Your task to perform on an android device: open app "HBO Max: Stream TV & Movies" (install if not already installed) Image 0: 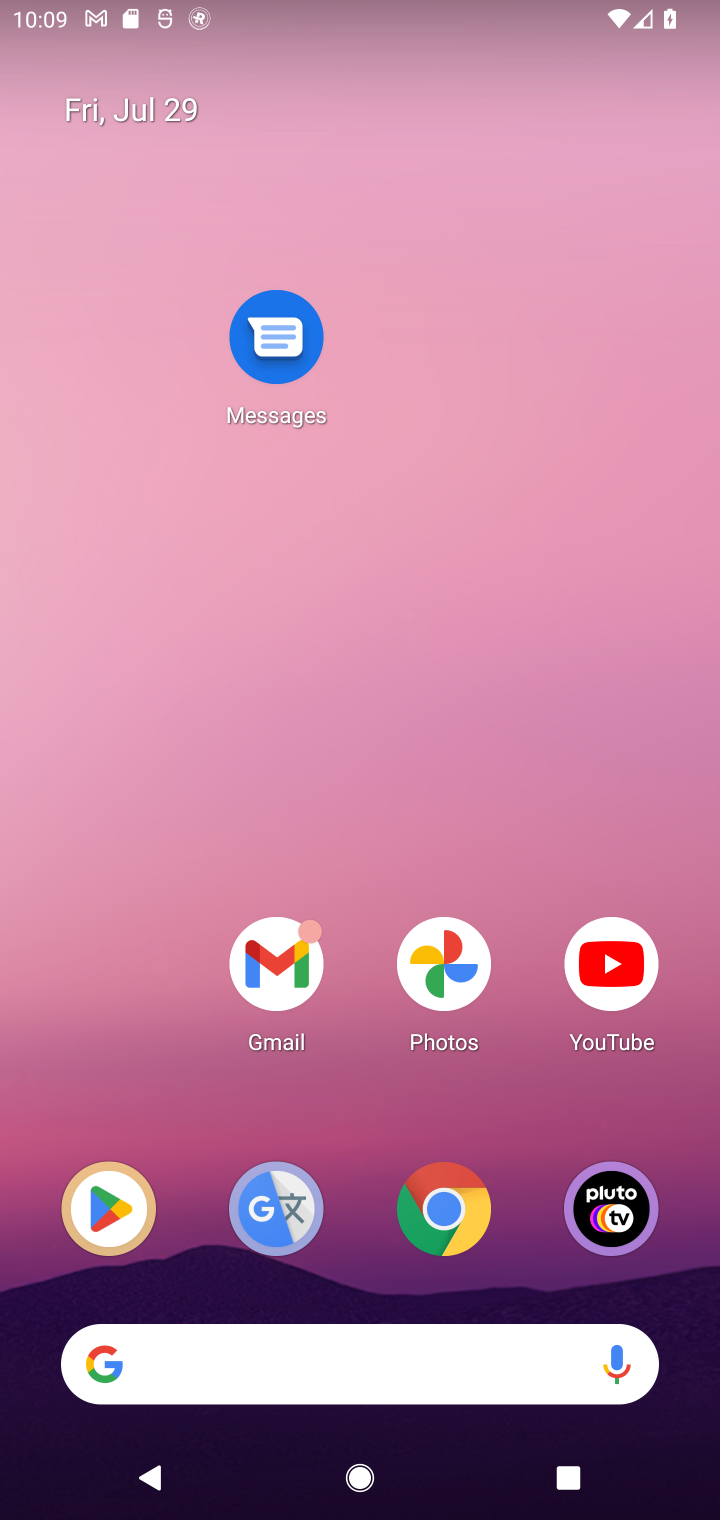
Step 0: drag from (306, 1375) to (377, 6)
Your task to perform on an android device: open app "HBO Max: Stream TV & Movies" (install if not already installed) Image 1: 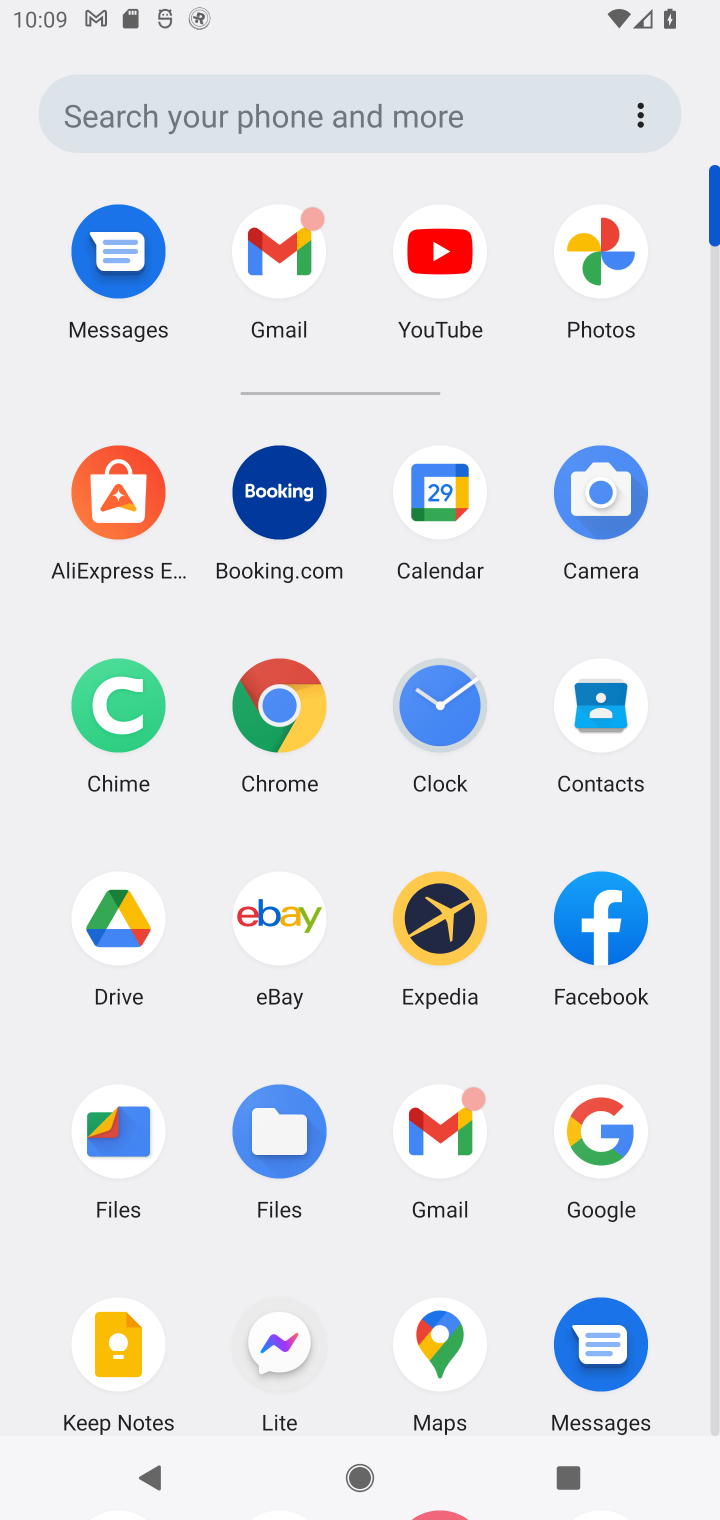
Step 1: drag from (344, 1250) to (393, 656)
Your task to perform on an android device: open app "HBO Max: Stream TV & Movies" (install if not already installed) Image 2: 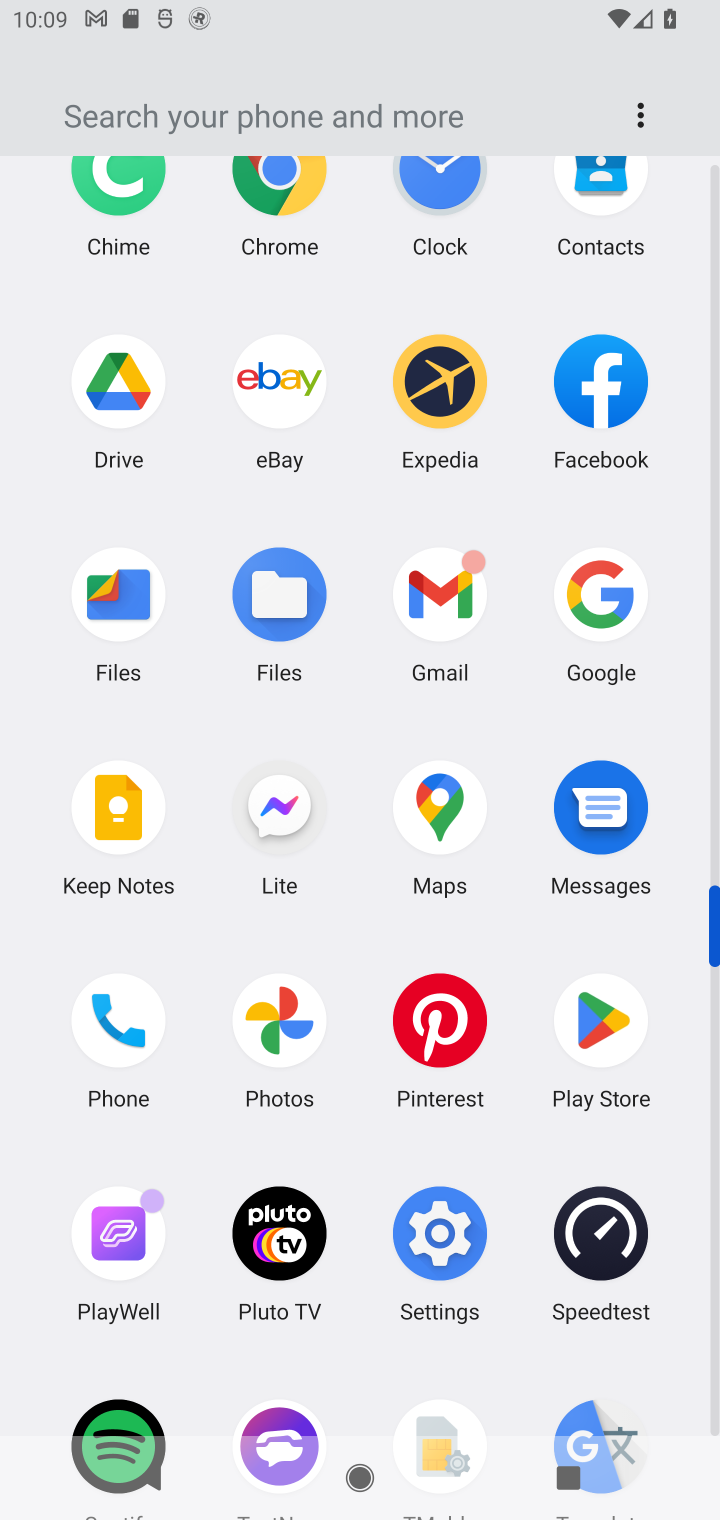
Step 2: click (606, 1021)
Your task to perform on an android device: open app "HBO Max: Stream TV & Movies" (install if not already installed) Image 3: 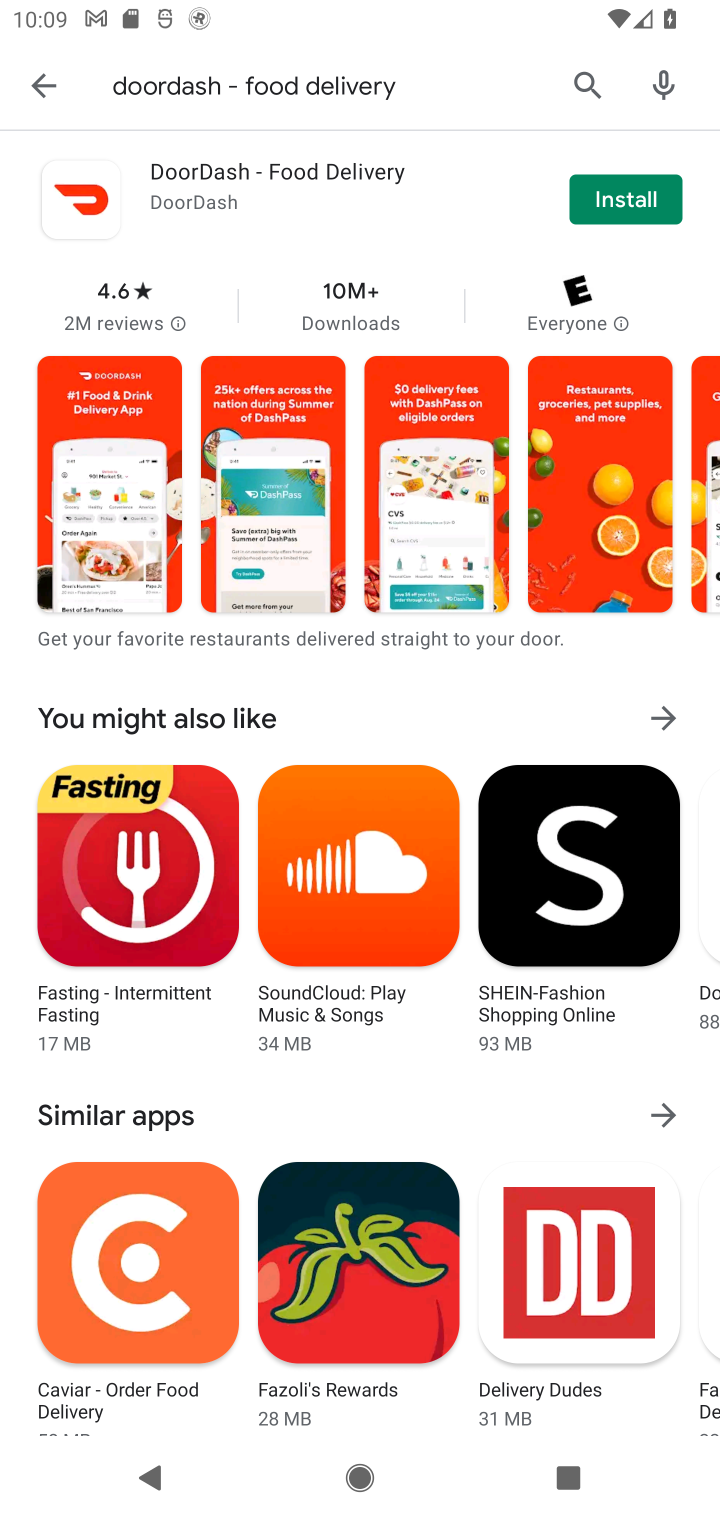
Step 3: click (487, 97)
Your task to perform on an android device: open app "HBO Max: Stream TV & Movies" (install if not already installed) Image 4: 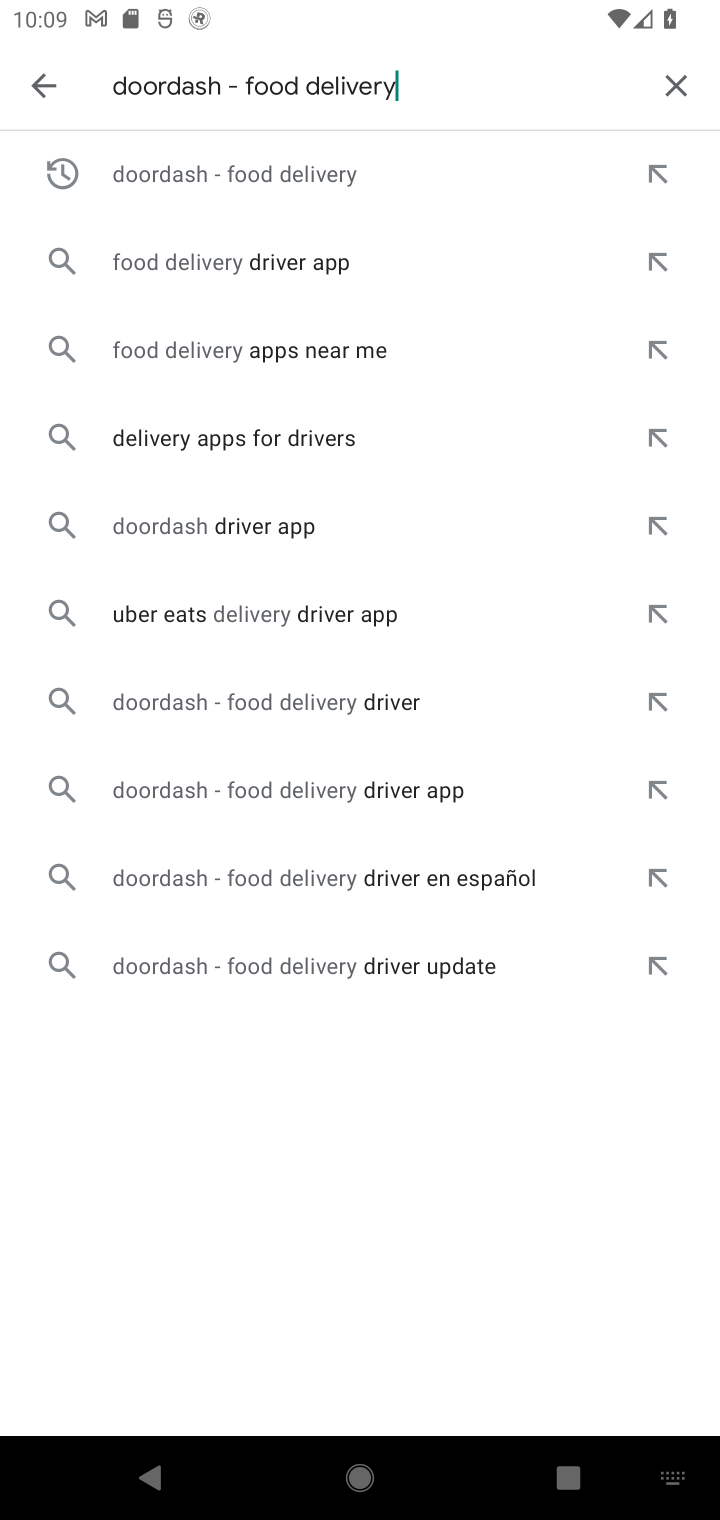
Step 4: click (690, 89)
Your task to perform on an android device: open app "HBO Max: Stream TV & Movies" (install if not already installed) Image 5: 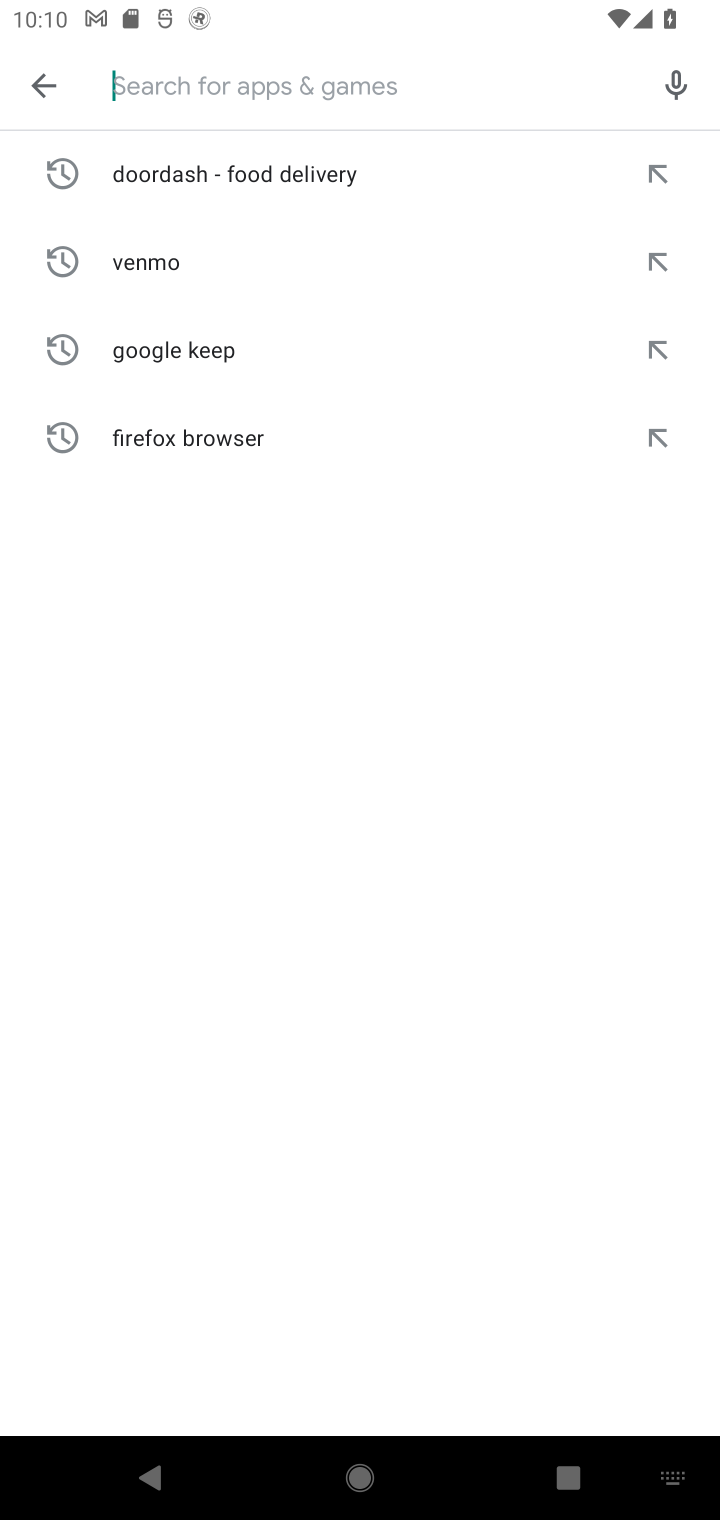
Step 5: type "HBO Max: Stream TV & Movies"
Your task to perform on an android device: open app "HBO Max: Stream TV & Movies" (install if not already installed) Image 6: 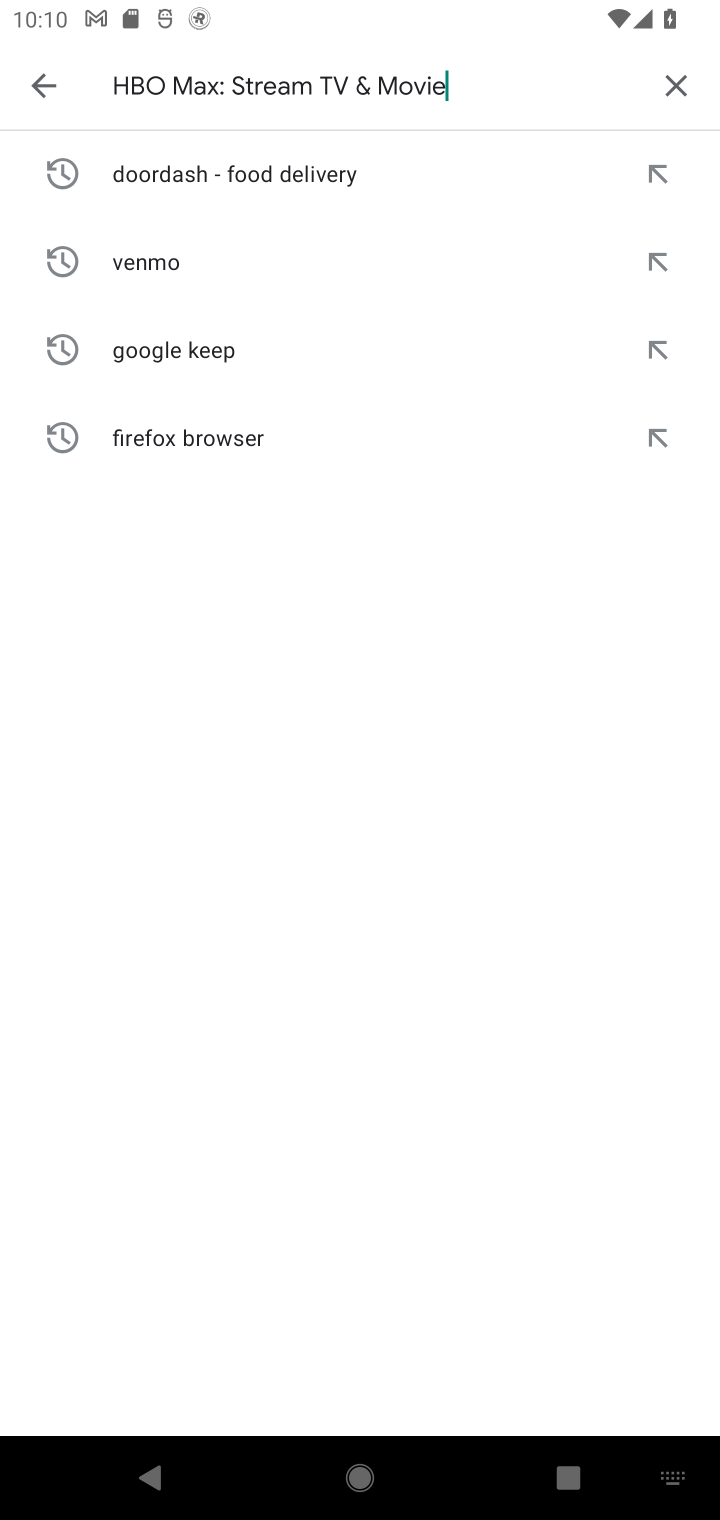
Step 6: type ""
Your task to perform on an android device: open app "HBO Max: Stream TV & Movies" (install if not already installed) Image 7: 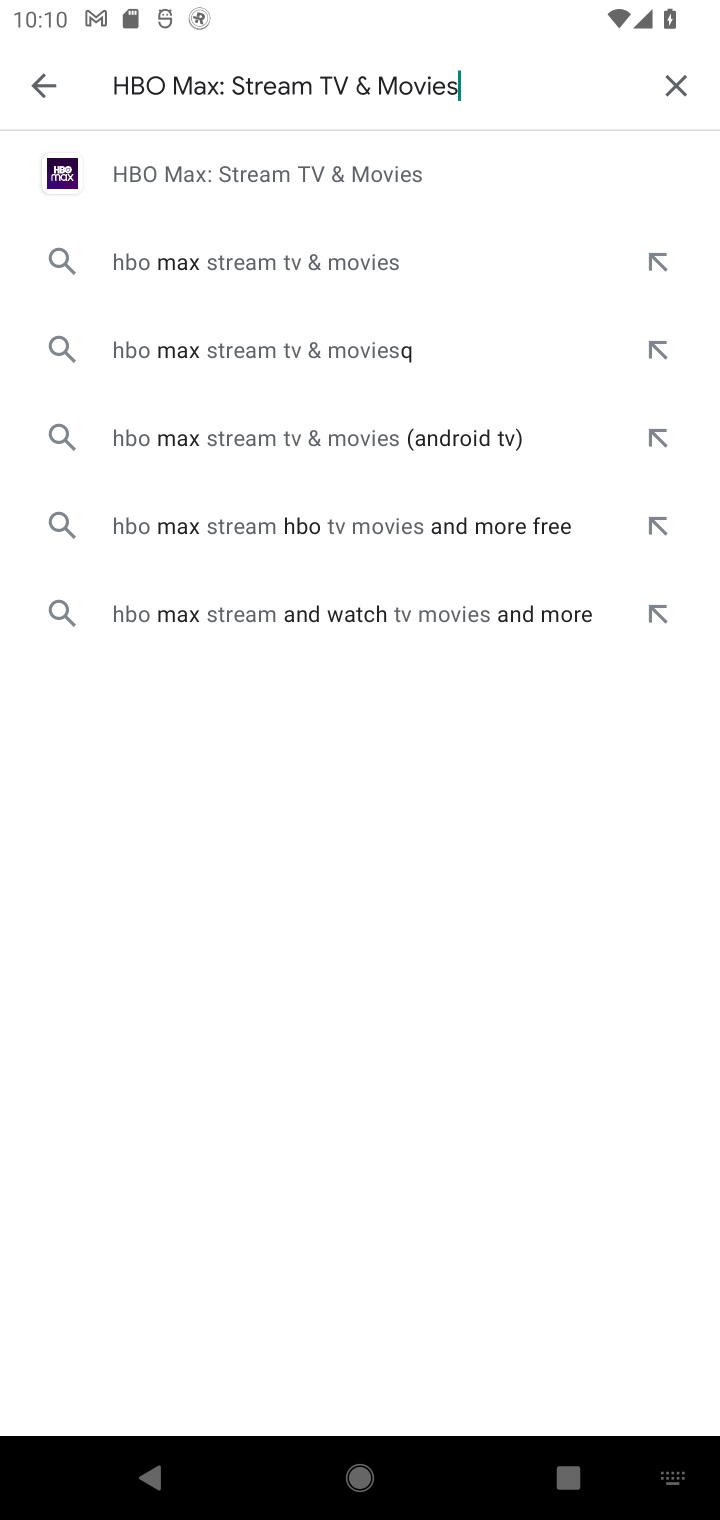
Step 7: click (312, 176)
Your task to perform on an android device: open app "HBO Max: Stream TV & Movies" (install if not already installed) Image 8: 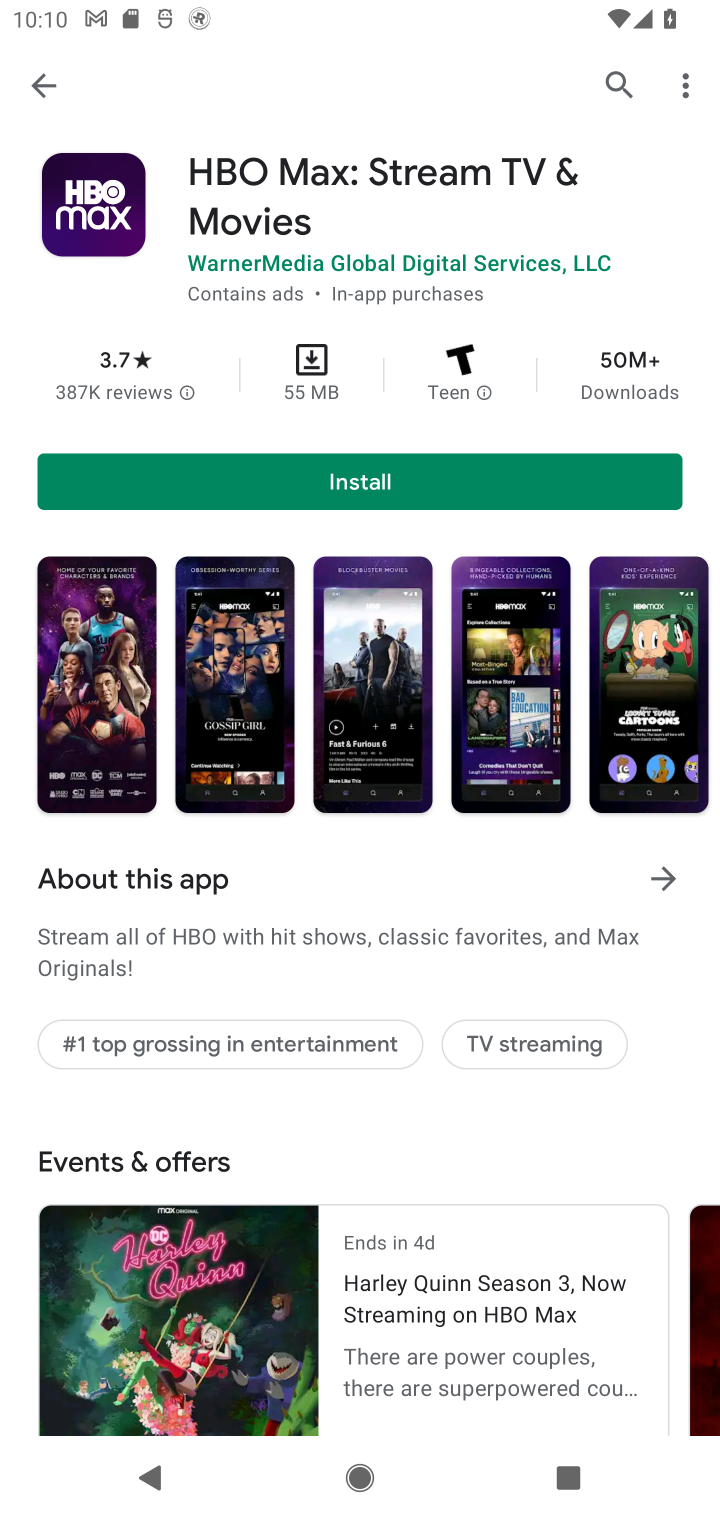
Step 8: click (360, 476)
Your task to perform on an android device: open app "HBO Max: Stream TV & Movies" (install if not already installed) Image 9: 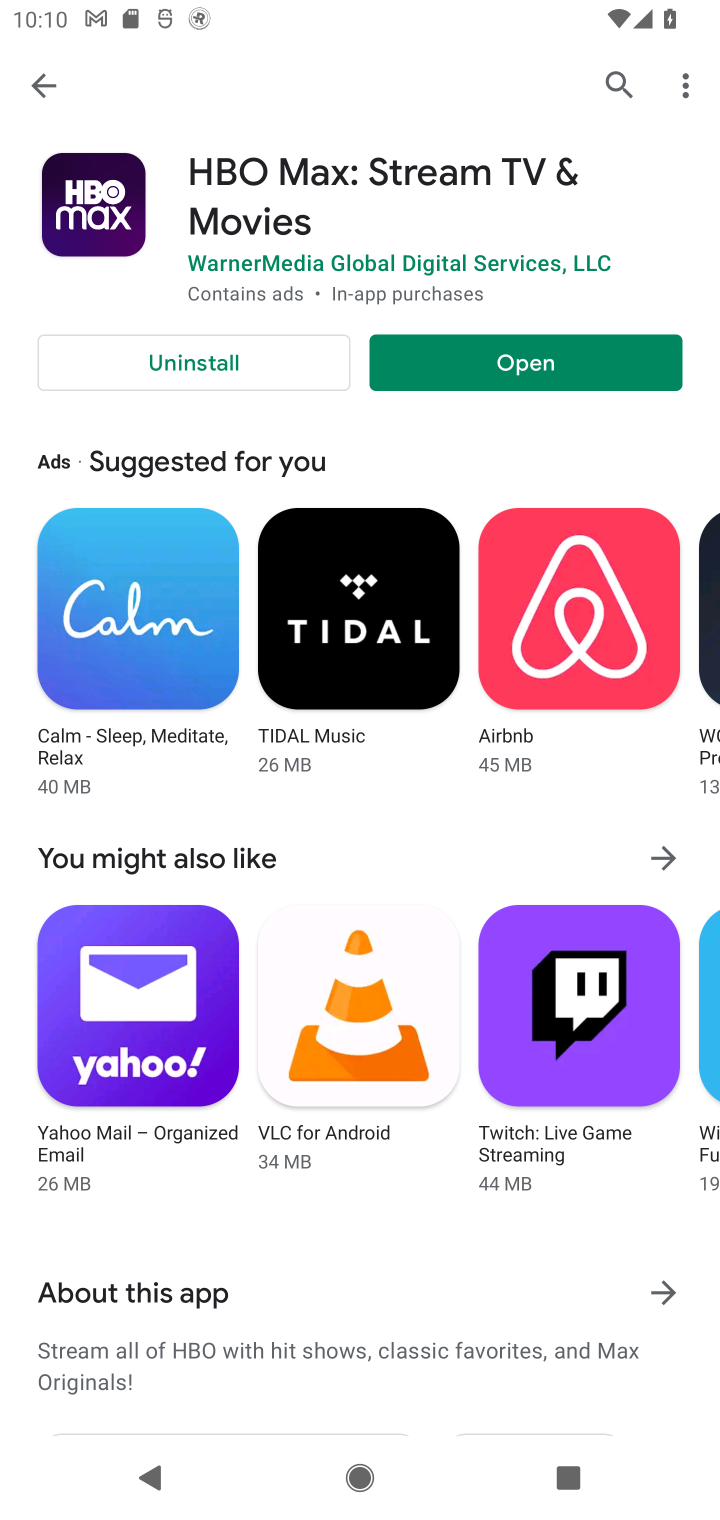
Step 9: click (565, 364)
Your task to perform on an android device: open app "HBO Max: Stream TV & Movies" (install if not already installed) Image 10: 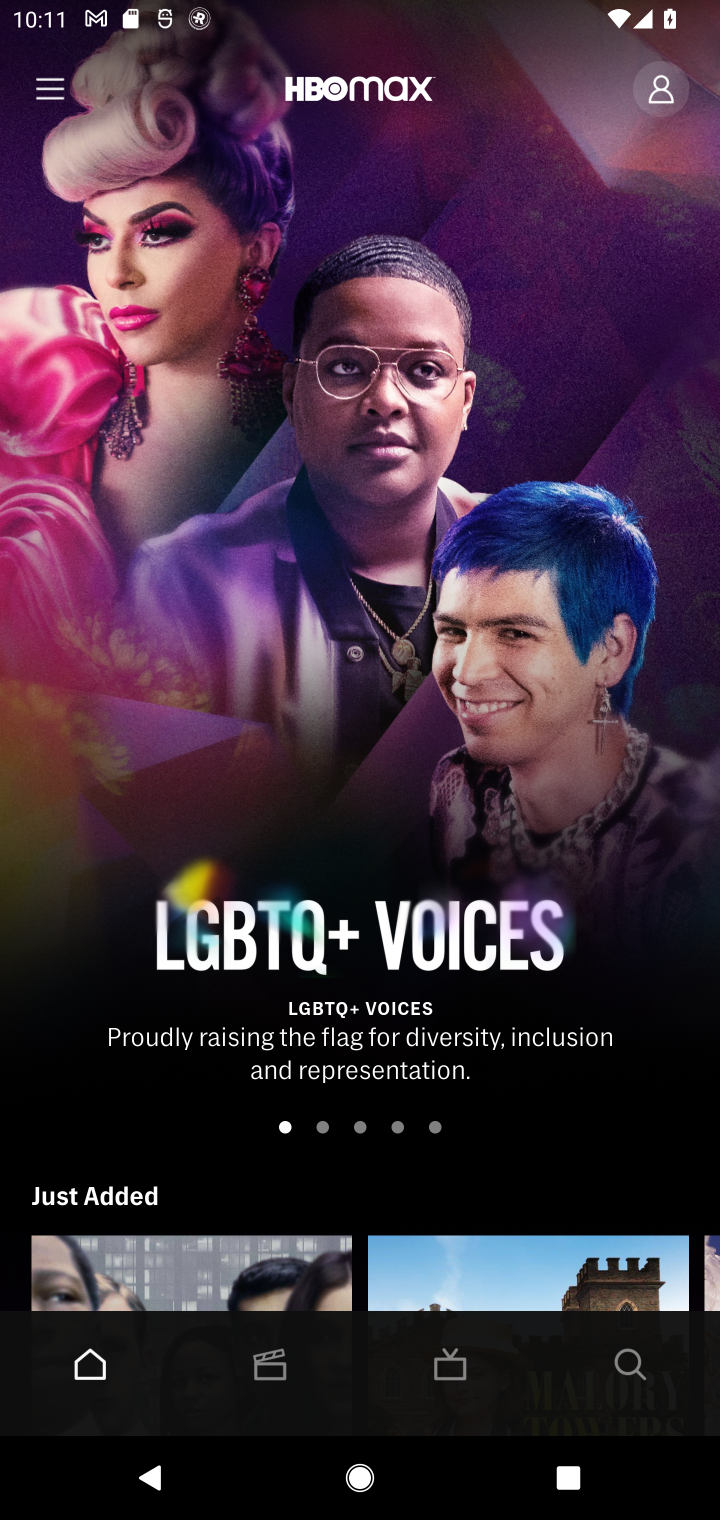
Step 10: task complete